Your task to perform on an android device: change notification settings in the gmail app Image 0: 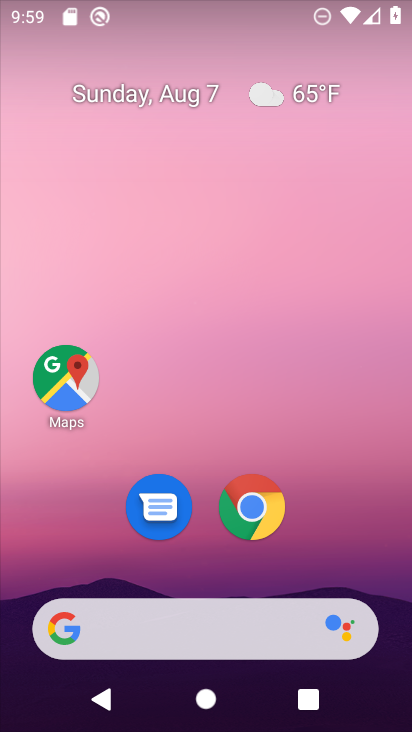
Step 0: drag from (354, 530) to (241, 1)
Your task to perform on an android device: change notification settings in the gmail app Image 1: 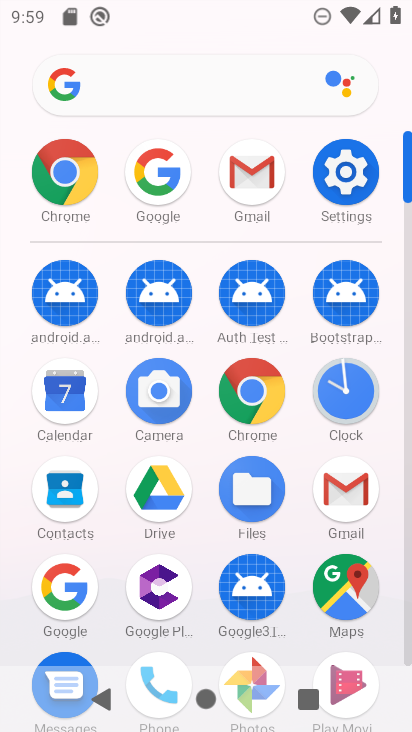
Step 1: click (254, 156)
Your task to perform on an android device: change notification settings in the gmail app Image 2: 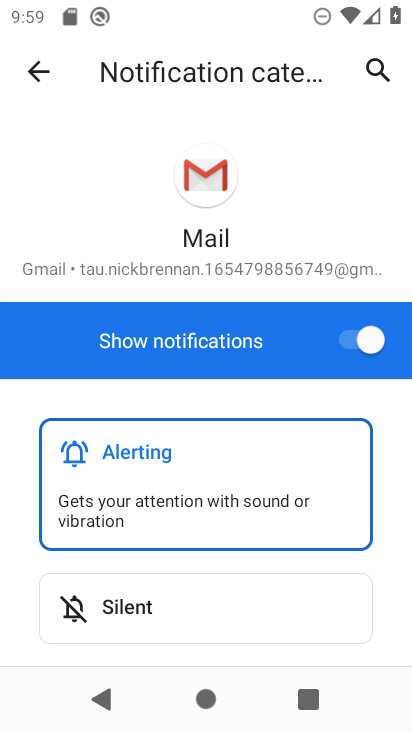
Step 2: click (373, 337)
Your task to perform on an android device: change notification settings in the gmail app Image 3: 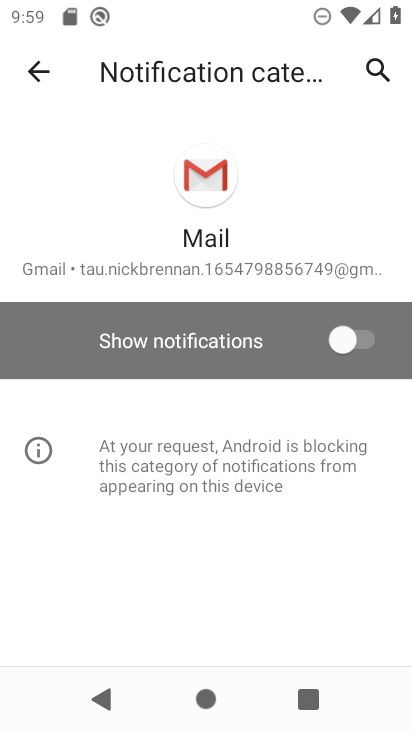
Step 3: task complete